Your task to perform on an android device: Open Maps and search for coffee Image 0: 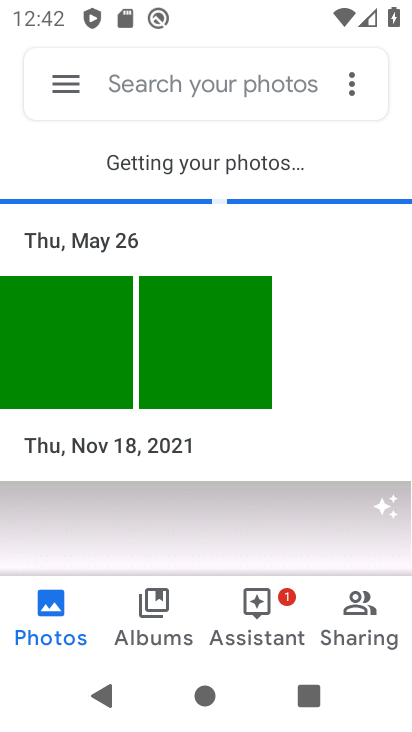
Step 0: press back button
Your task to perform on an android device: Open Maps and search for coffee Image 1: 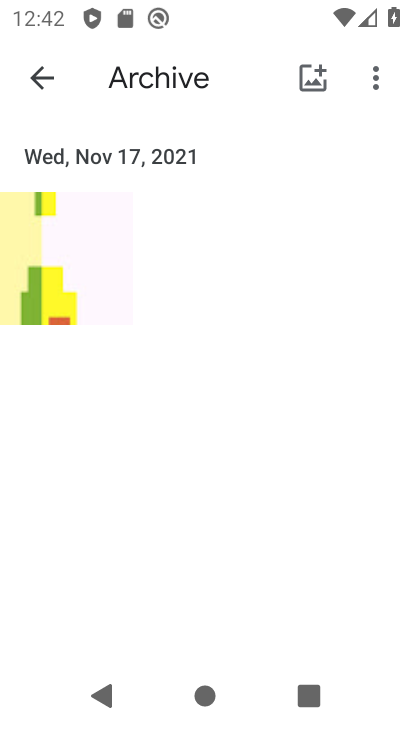
Step 1: press back button
Your task to perform on an android device: Open Maps and search for coffee Image 2: 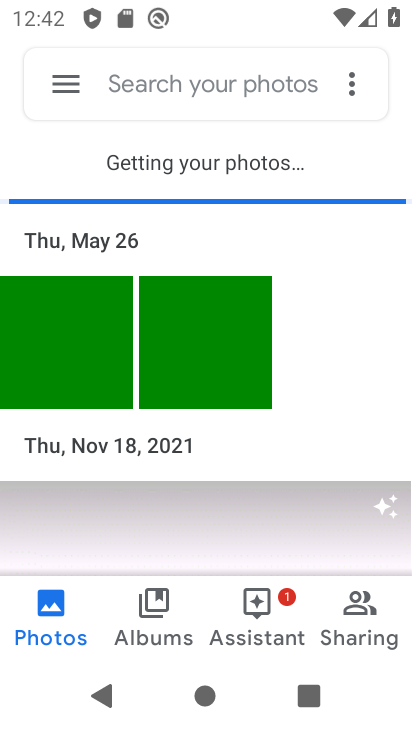
Step 2: press back button
Your task to perform on an android device: Open Maps and search for coffee Image 3: 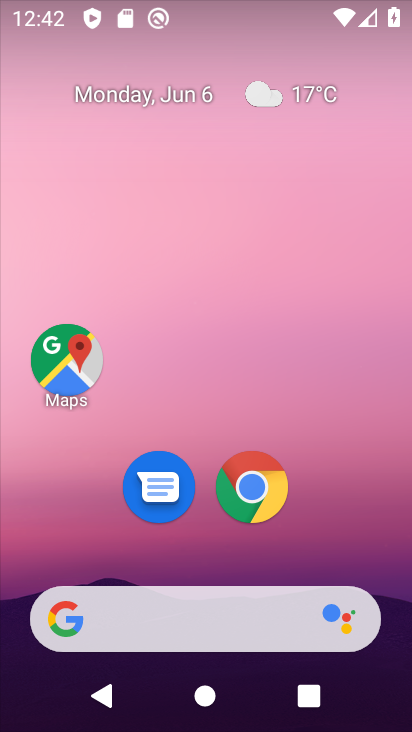
Step 3: click (90, 364)
Your task to perform on an android device: Open Maps and search for coffee Image 4: 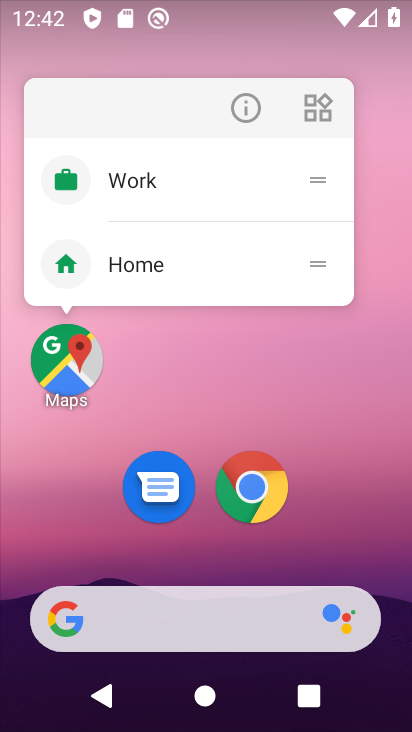
Step 4: click (28, 355)
Your task to perform on an android device: Open Maps and search for coffee Image 5: 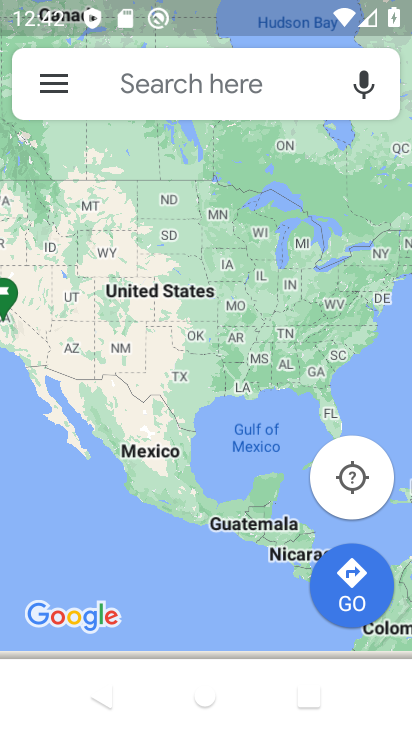
Step 5: click (184, 85)
Your task to perform on an android device: Open Maps and search for coffee Image 6: 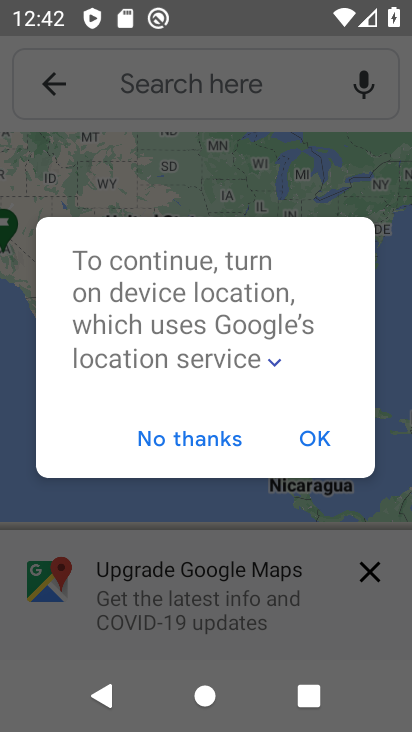
Step 6: click (172, 434)
Your task to perform on an android device: Open Maps and search for coffee Image 7: 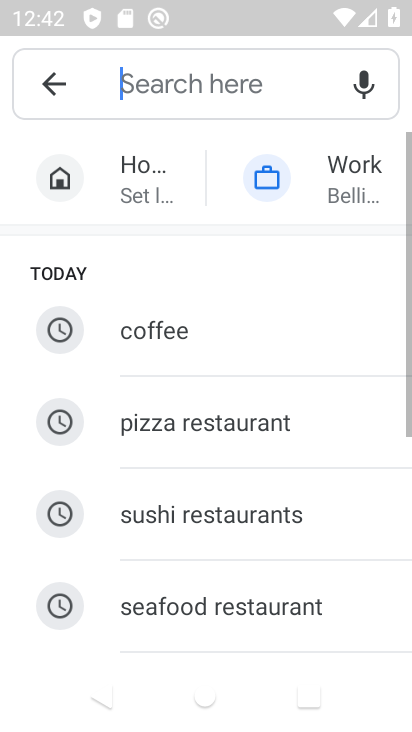
Step 7: click (166, 330)
Your task to perform on an android device: Open Maps and search for coffee Image 8: 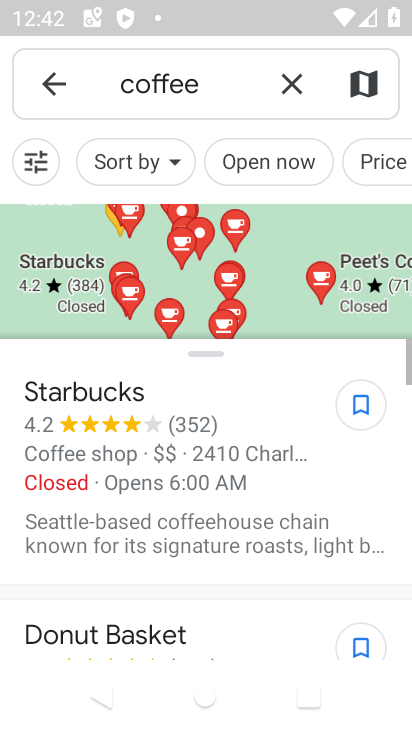
Step 8: task complete